Your task to perform on an android device: search for starred emails in the gmail app Image 0: 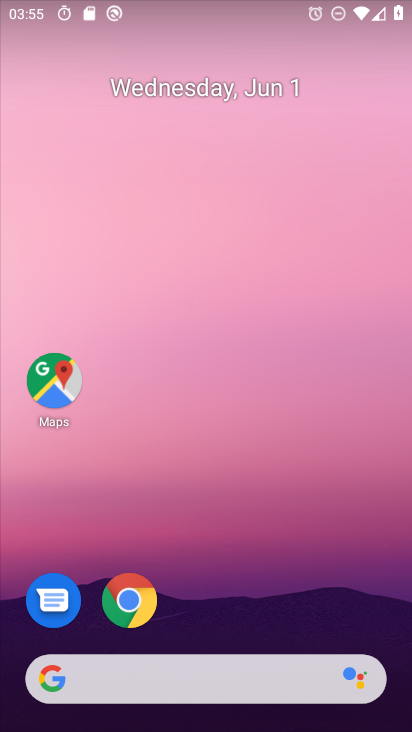
Step 0: drag from (200, 610) to (259, 250)
Your task to perform on an android device: search for starred emails in the gmail app Image 1: 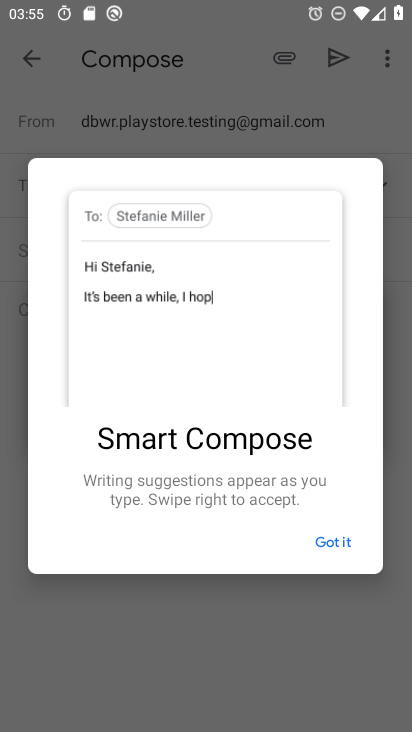
Step 1: press home button
Your task to perform on an android device: search for starred emails in the gmail app Image 2: 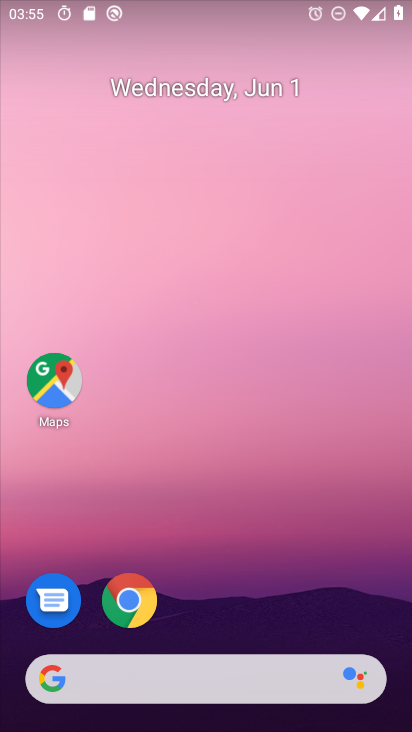
Step 2: drag from (208, 610) to (235, 279)
Your task to perform on an android device: search for starred emails in the gmail app Image 3: 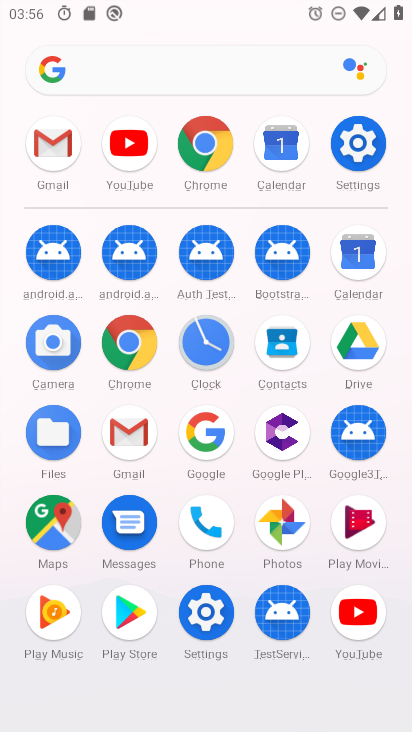
Step 3: click (117, 435)
Your task to perform on an android device: search for starred emails in the gmail app Image 4: 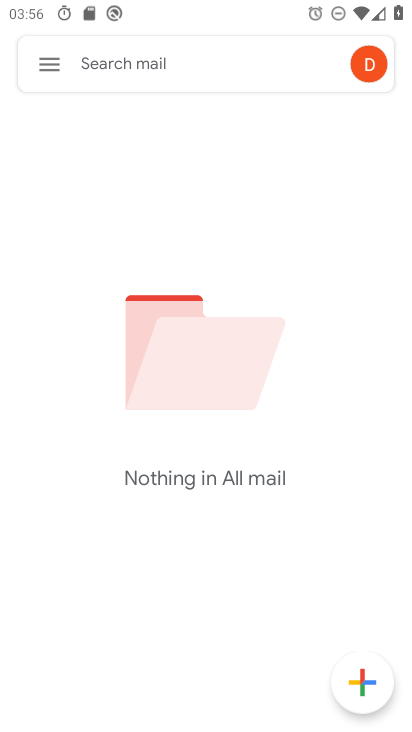
Step 4: click (50, 71)
Your task to perform on an android device: search for starred emails in the gmail app Image 5: 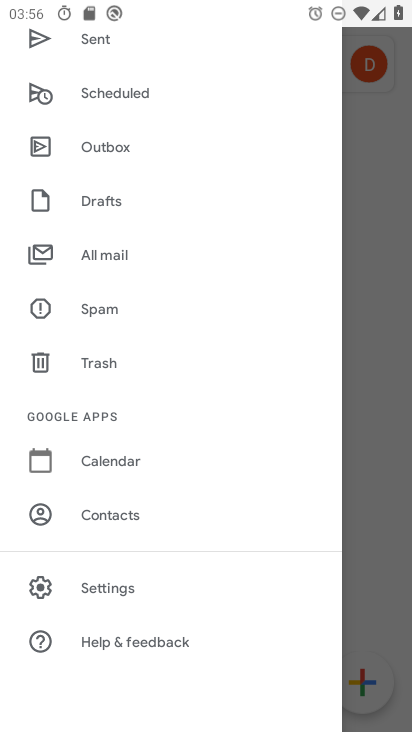
Step 5: drag from (115, 164) to (98, 454)
Your task to perform on an android device: search for starred emails in the gmail app Image 6: 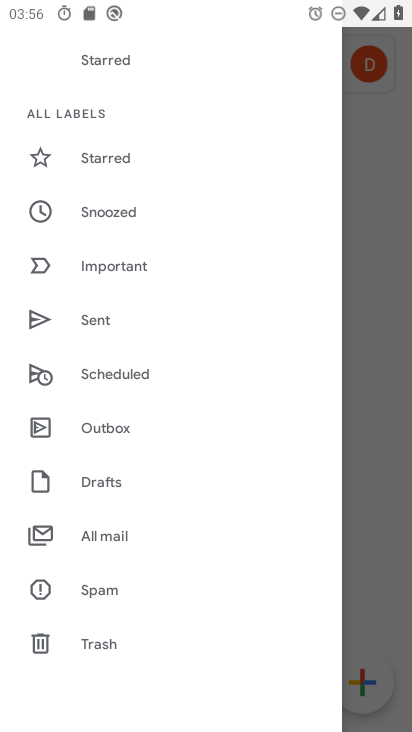
Step 6: click (108, 155)
Your task to perform on an android device: search for starred emails in the gmail app Image 7: 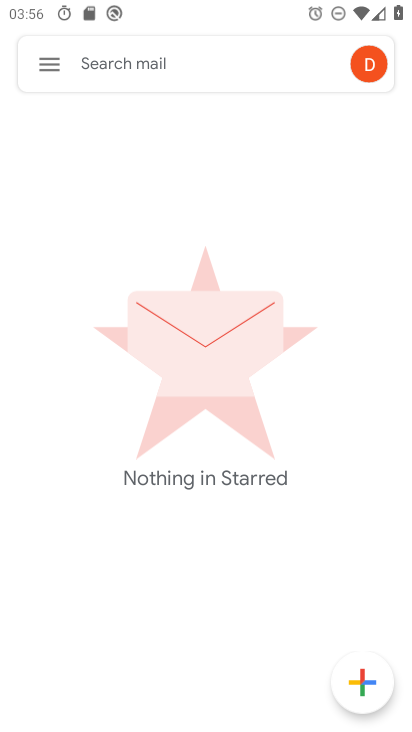
Step 7: task complete